Your task to perform on an android device: Open network settings Image 0: 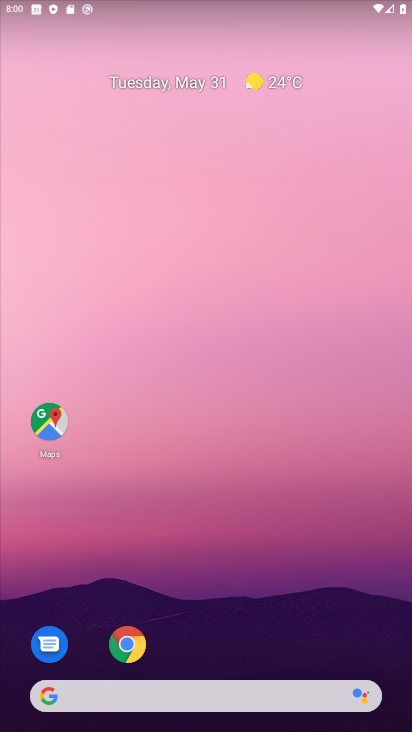
Step 0: drag from (242, 609) to (249, 192)
Your task to perform on an android device: Open network settings Image 1: 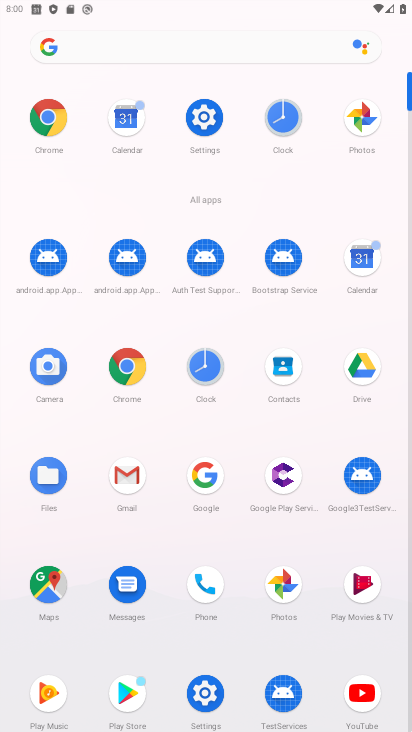
Step 1: click (212, 110)
Your task to perform on an android device: Open network settings Image 2: 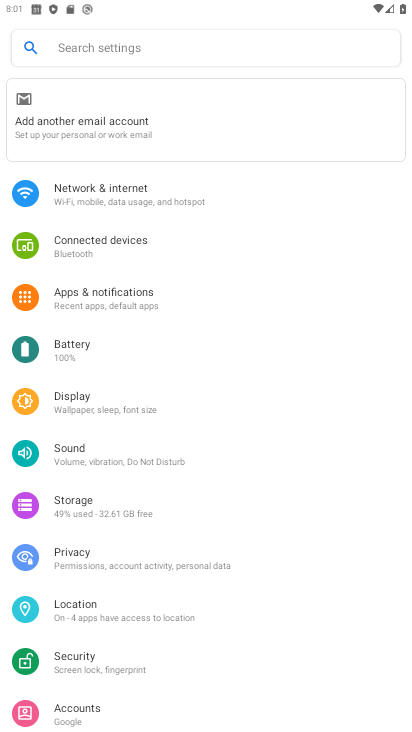
Step 2: click (110, 198)
Your task to perform on an android device: Open network settings Image 3: 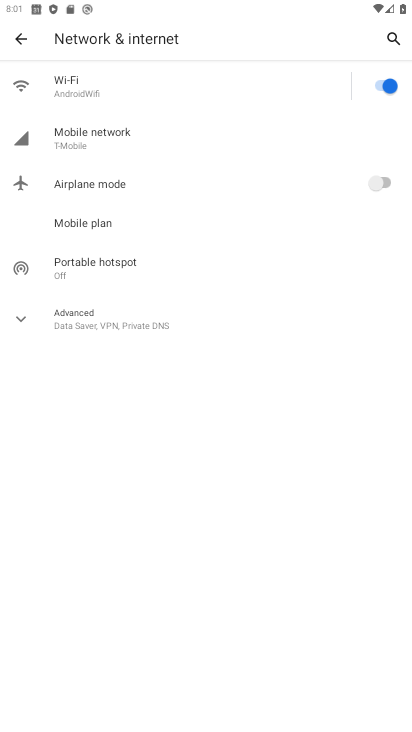
Step 3: task complete